Your task to perform on an android device: toggle wifi Image 0: 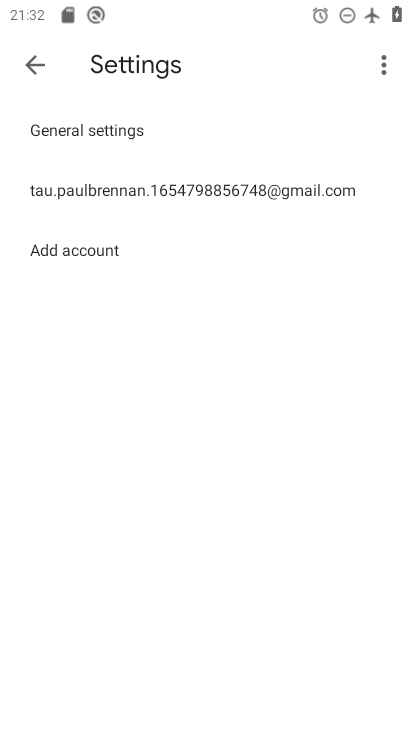
Step 0: press home button
Your task to perform on an android device: toggle wifi Image 1: 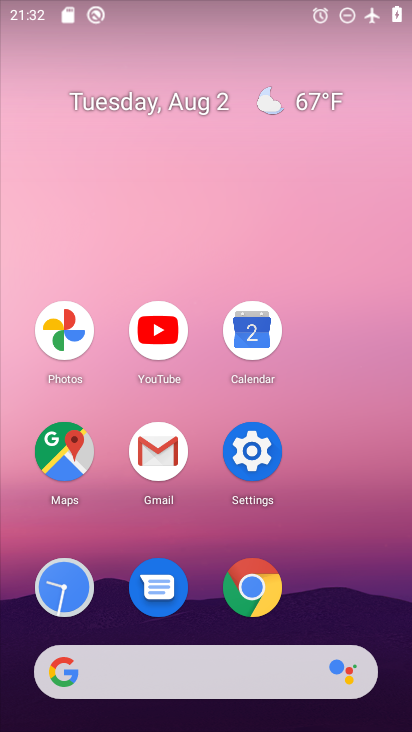
Step 1: click (250, 450)
Your task to perform on an android device: toggle wifi Image 2: 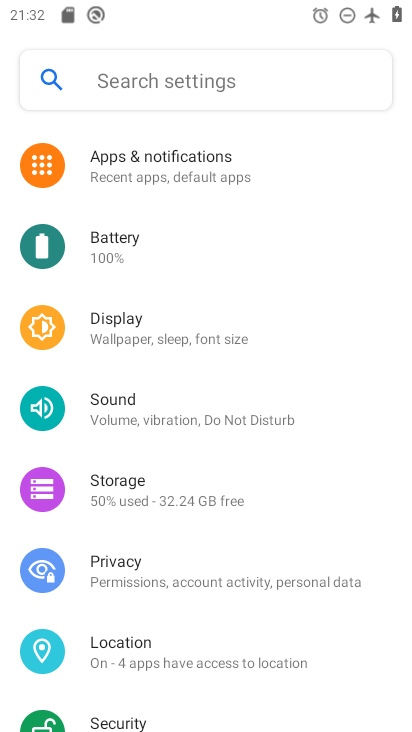
Step 2: drag from (199, 217) to (126, 715)
Your task to perform on an android device: toggle wifi Image 3: 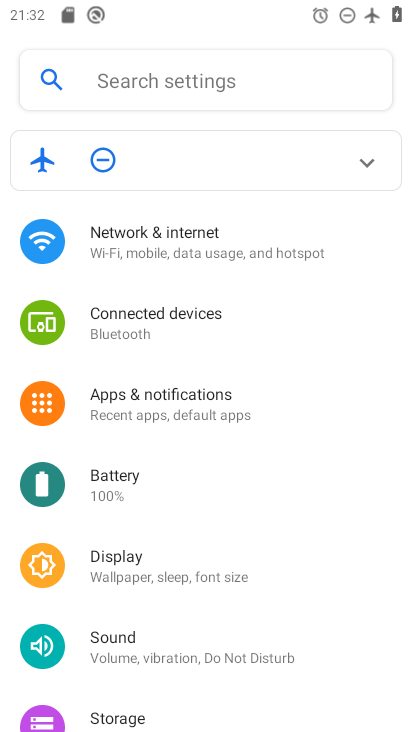
Step 3: click (182, 226)
Your task to perform on an android device: toggle wifi Image 4: 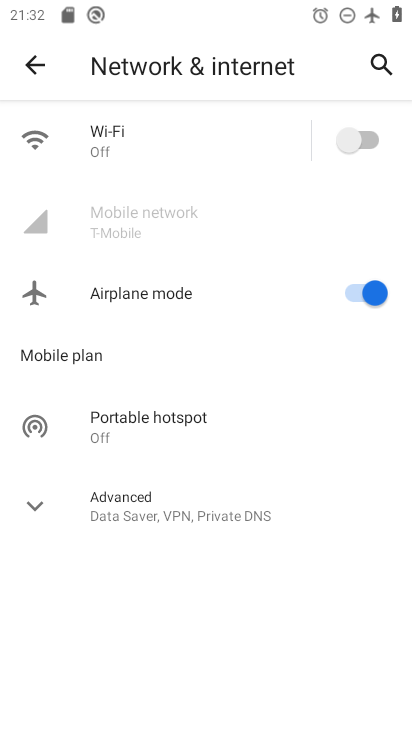
Step 4: click (353, 140)
Your task to perform on an android device: toggle wifi Image 5: 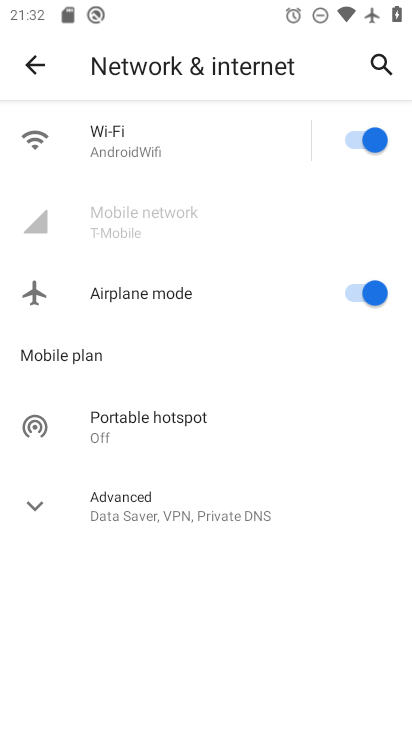
Step 5: task complete